Your task to perform on an android device: What is the speed of a plane? Image 0: 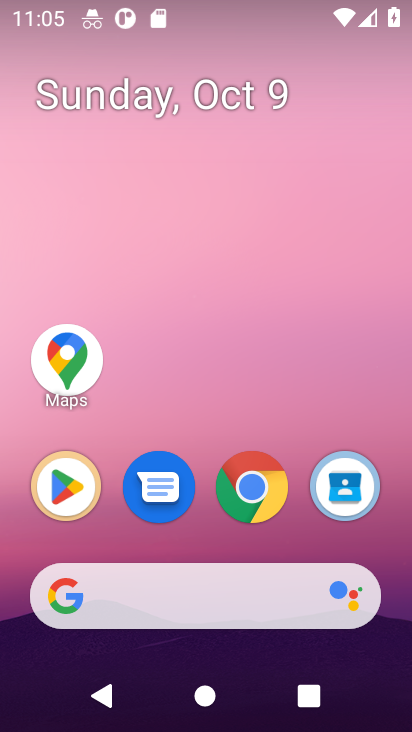
Step 0: click (269, 504)
Your task to perform on an android device: What is the speed of a plane? Image 1: 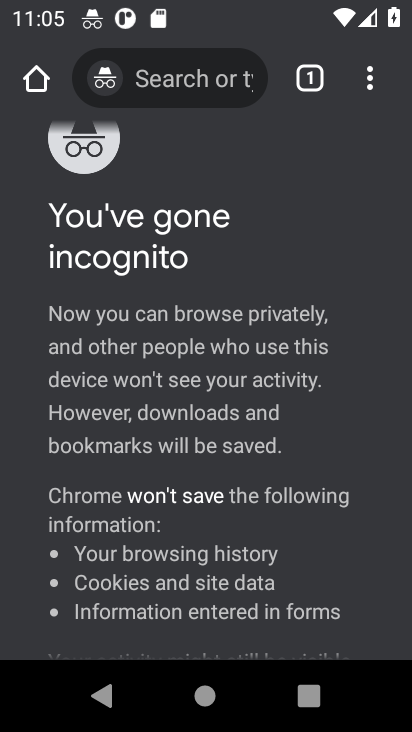
Step 1: click (373, 83)
Your task to perform on an android device: What is the speed of a plane? Image 2: 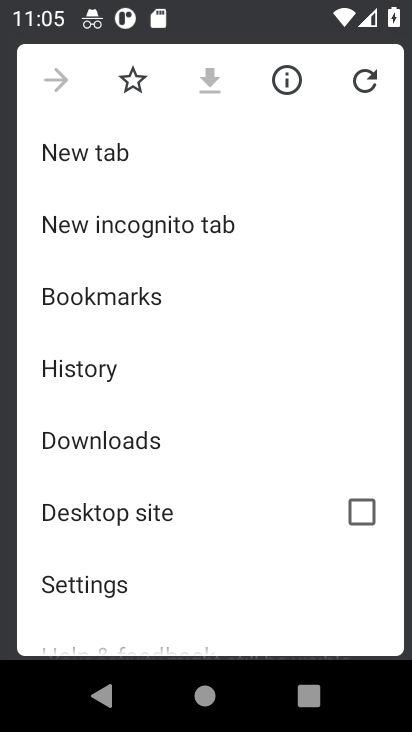
Step 2: click (156, 159)
Your task to perform on an android device: What is the speed of a plane? Image 3: 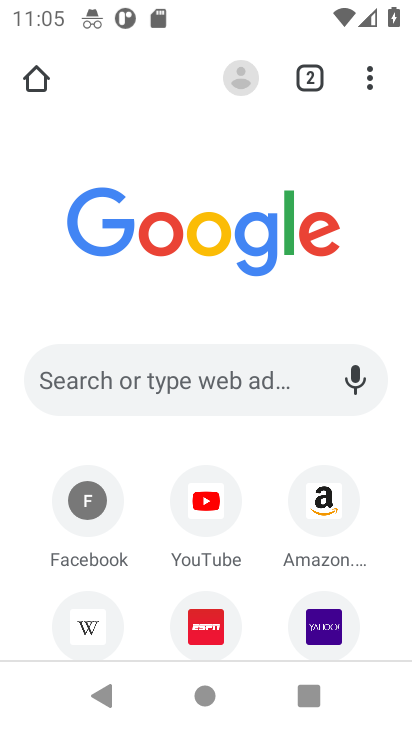
Step 3: click (202, 365)
Your task to perform on an android device: What is the speed of a plane? Image 4: 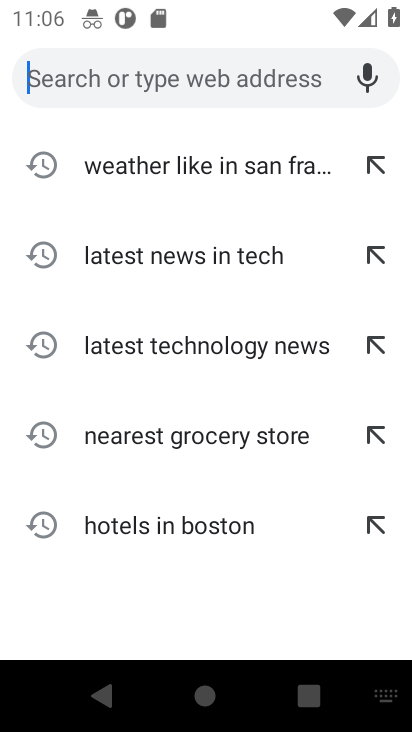
Step 4: type "speed of a plane"
Your task to perform on an android device: What is the speed of a plane? Image 5: 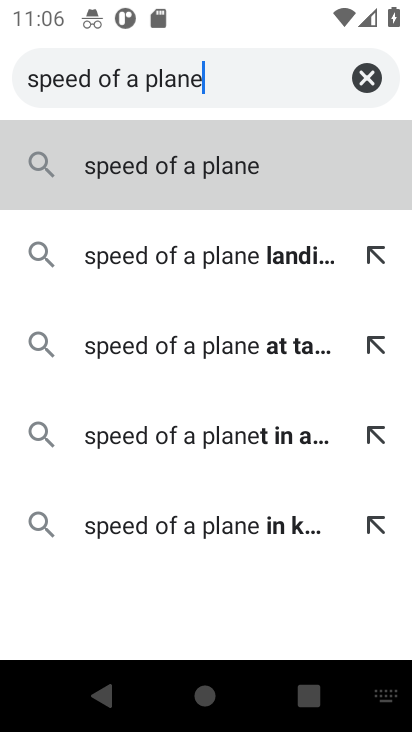
Step 5: press enter
Your task to perform on an android device: What is the speed of a plane? Image 6: 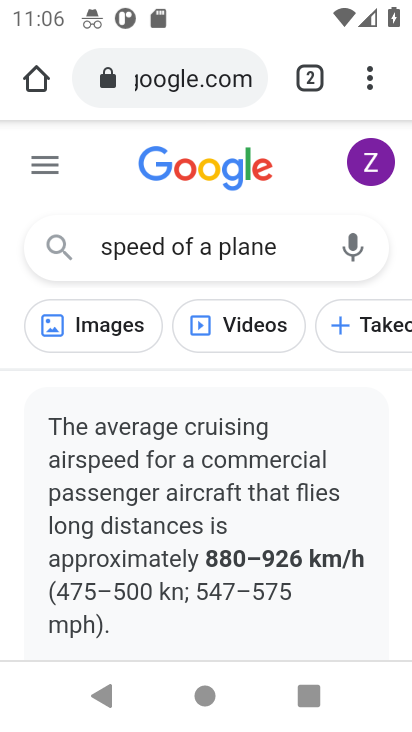
Step 6: task complete